Your task to perform on an android device: set the stopwatch Image 0: 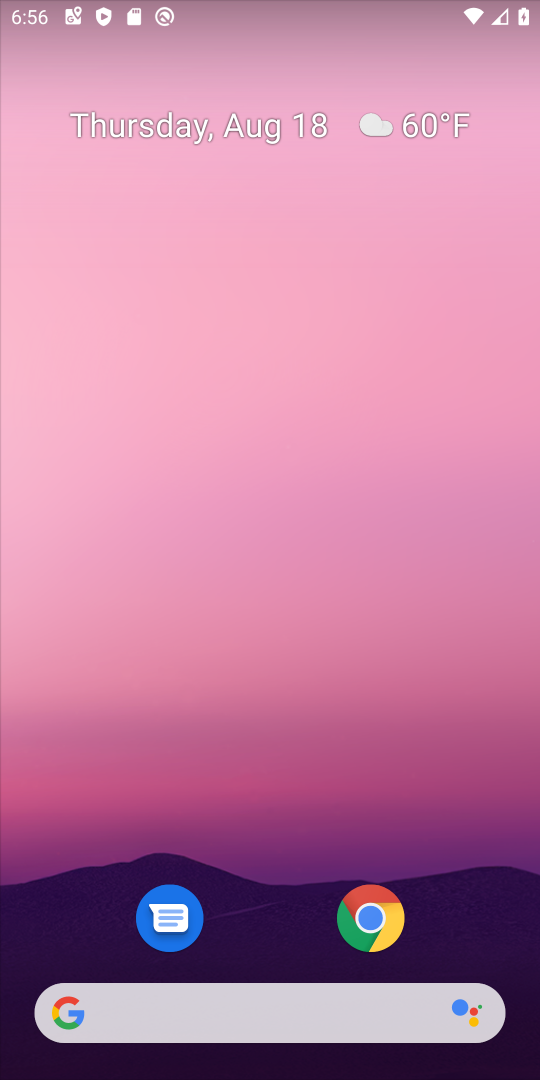
Step 0: drag from (307, 909) to (338, 127)
Your task to perform on an android device: set the stopwatch Image 1: 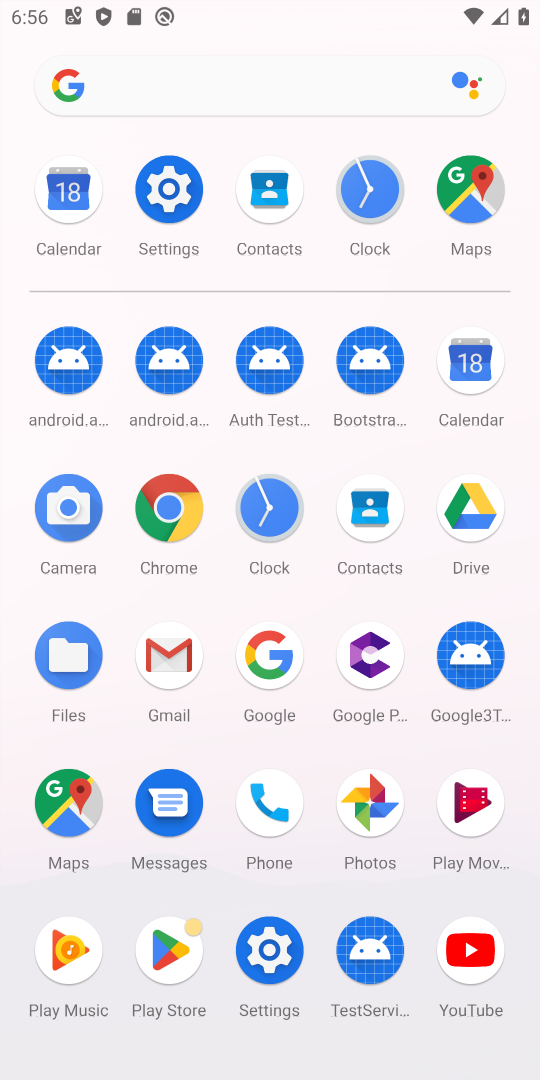
Step 1: click (373, 201)
Your task to perform on an android device: set the stopwatch Image 2: 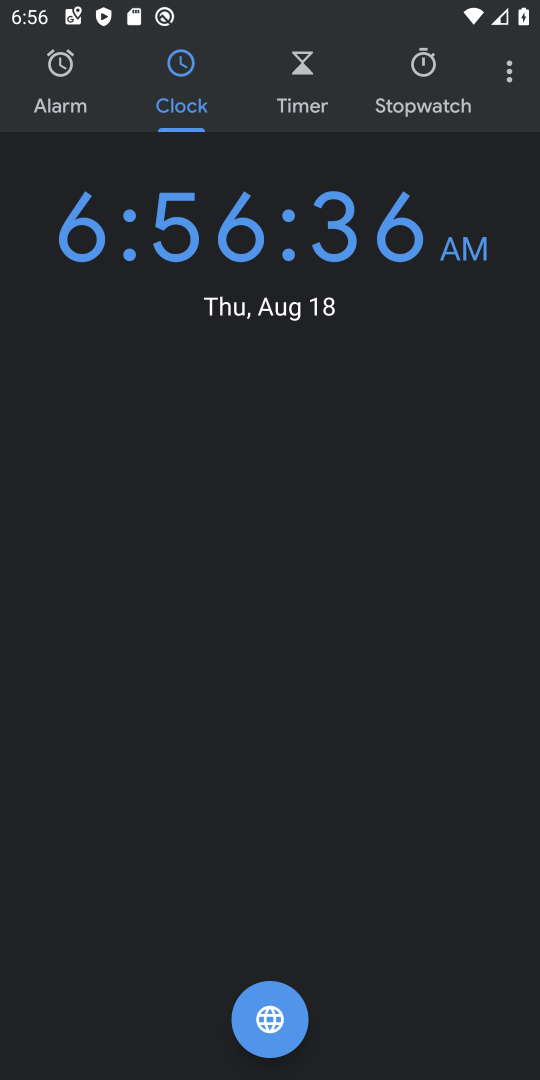
Step 2: click (421, 57)
Your task to perform on an android device: set the stopwatch Image 3: 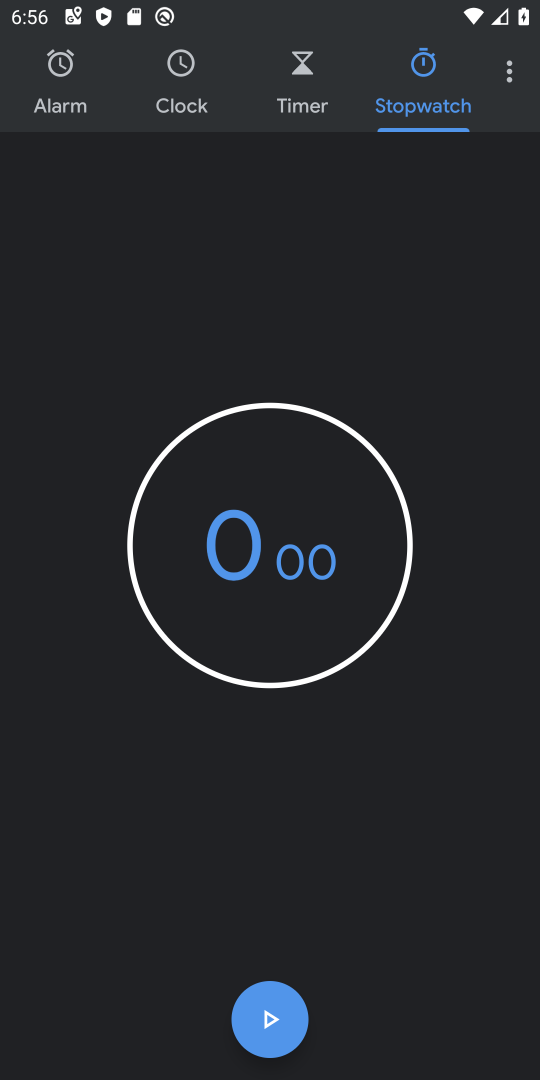
Step 3: click (269, 1026)
Your task to perform on an android device: set the stopwatch Image 4: 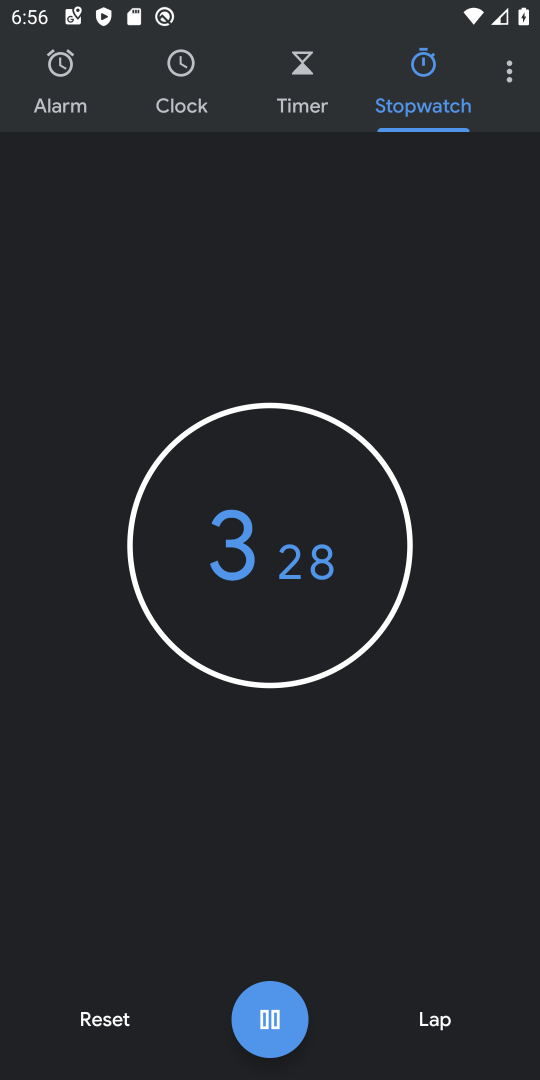
Step 4: task complete